Your task to perform on an android device: delete a single message in the gmail app Image 0: 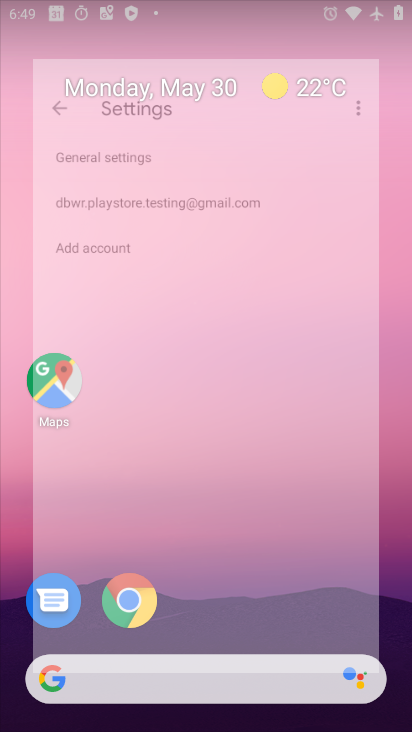
Step 0: press home button
Your task to perform on an android device: delete a single message in the gmail app Image 1: 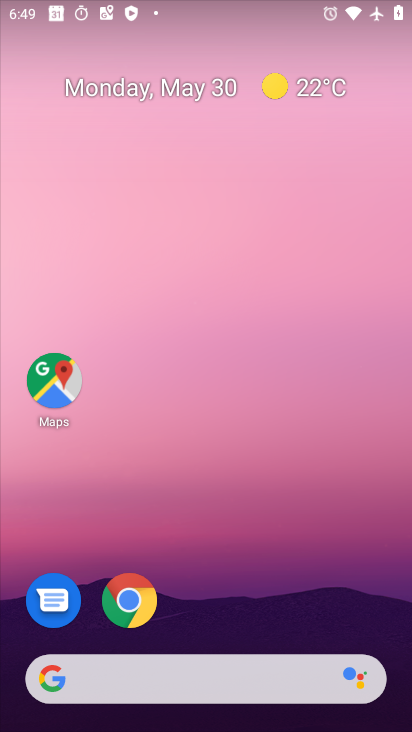
Step 1: drag from (227, 618) to (234, 122)
Your task to perform on an android device: delete a single message in the gmail app Image 2: 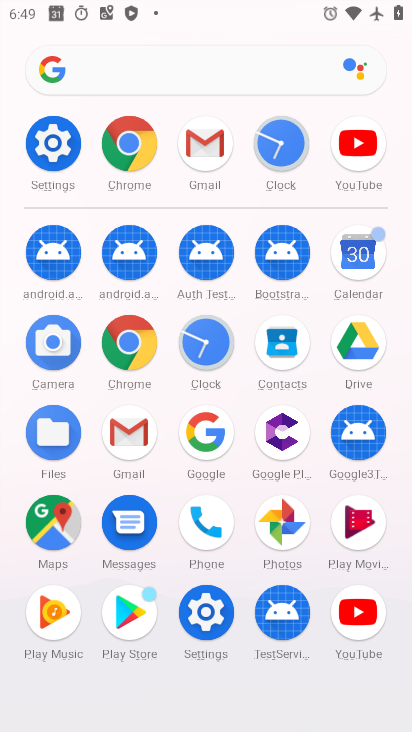
Step 2: click (213, 154)
Your task to perform on an android device: delete a single message in the gmail app Image 3: 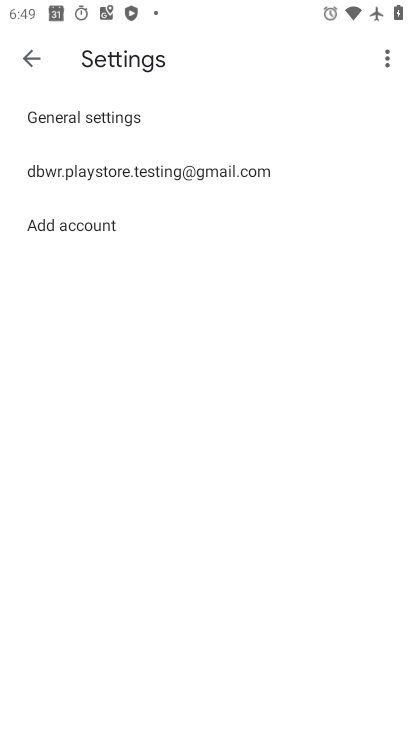
Step 3: click (23, 54)
Your task to perform on an android device: delete a single message in the gmail app Image 4: 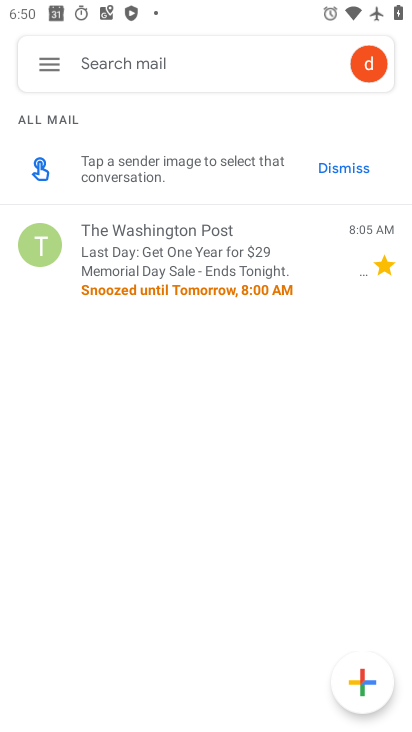
Step 4: click (255, 252)
Your task to perform on an android device: delete a single message in the gmail app Image 5: 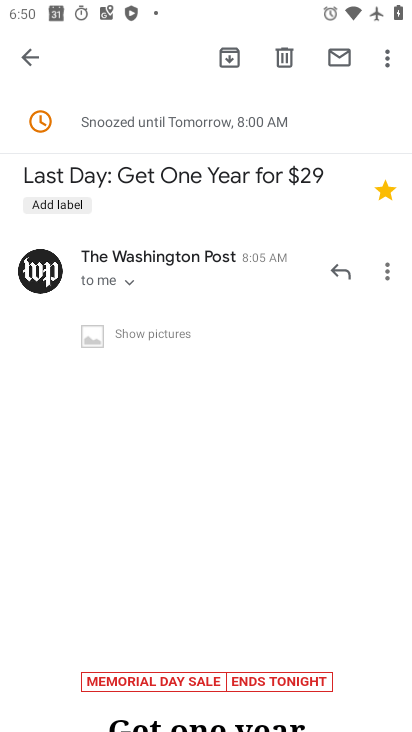
Step 5: click (287, 54)
Your task to perform on an android device: delete a single message in the gmail app Image 6: 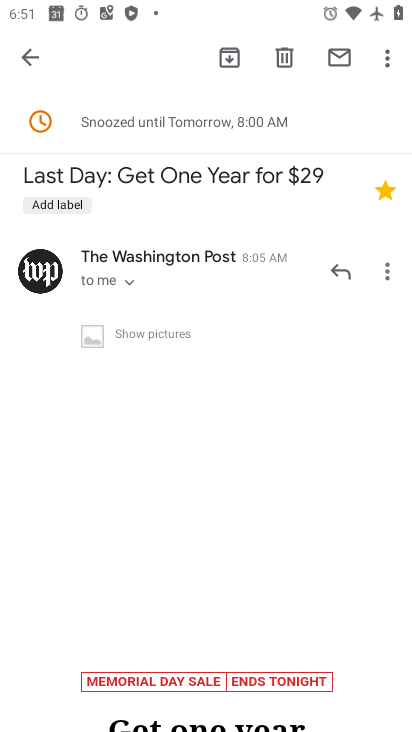
Step 6: task complete